Your task to perform on an android device: change notifications settings Image 0: 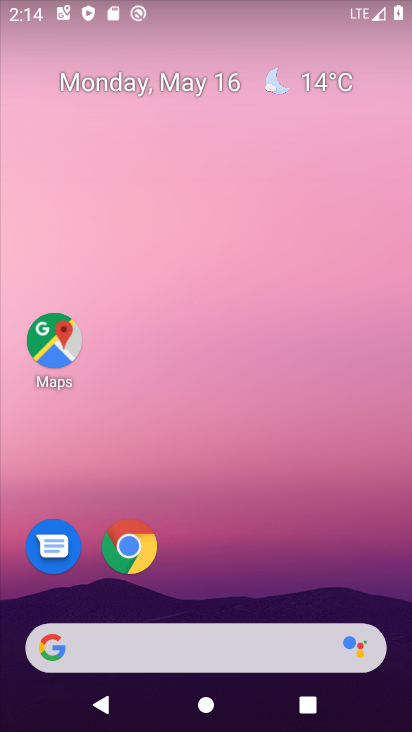
Step 0: drag from (276, 659) to (293, 253)
Your task to perform on an android device: change notifications settings Image 1: 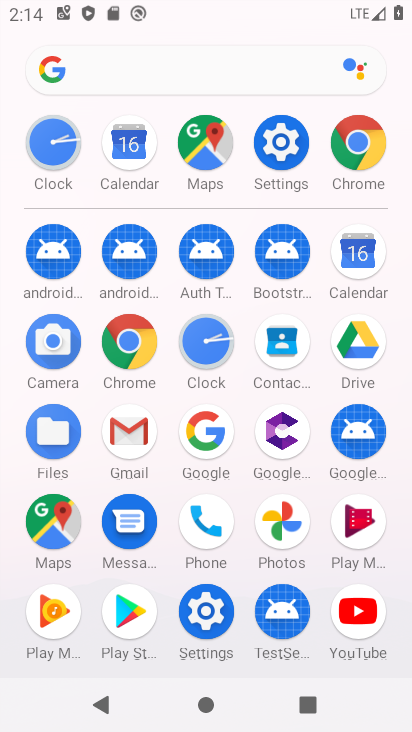
Step 1: click (197, 606)
Your task to perform on an android device: change notifications settings Image 2: 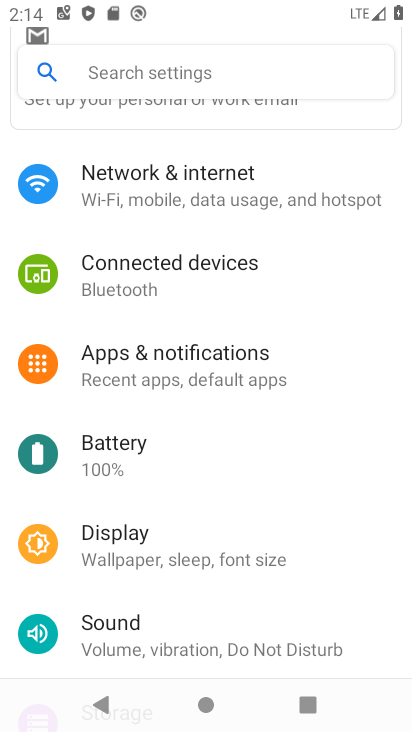
Step 2: click (137, 74)
Your task to perform on an android device: change notifications settings Image 3: 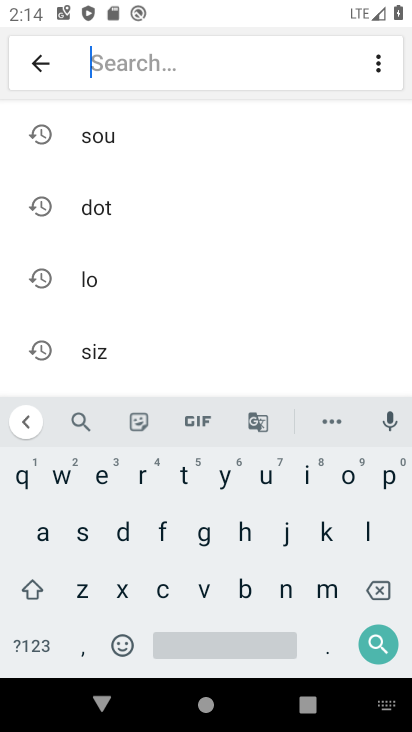
Step 3: click (287, 588)
Your task to perform on an android device: change notifications settings Image 4: 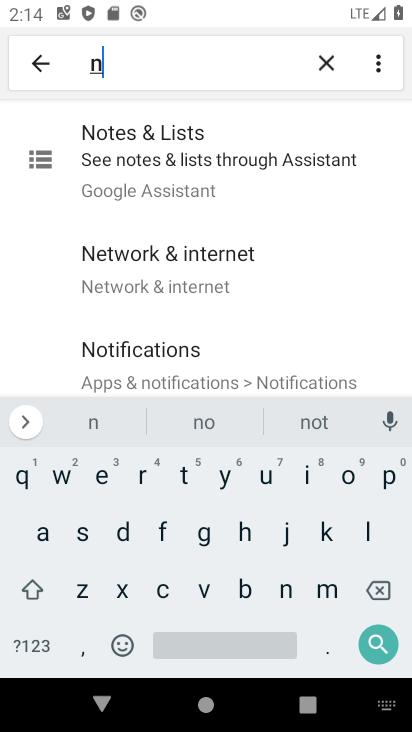
Step 4: click (343, 479)
Your task to perform on an android device: change notifications settings Image 5: 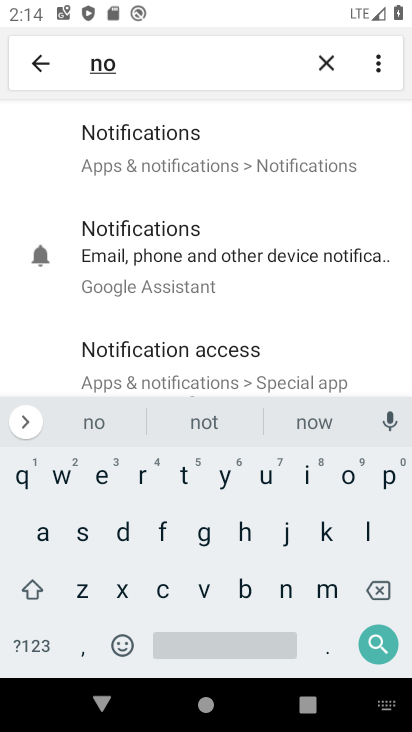
Step 5: click (181, 166)
Your task to perform on an android device: change notifications settings Image 6: 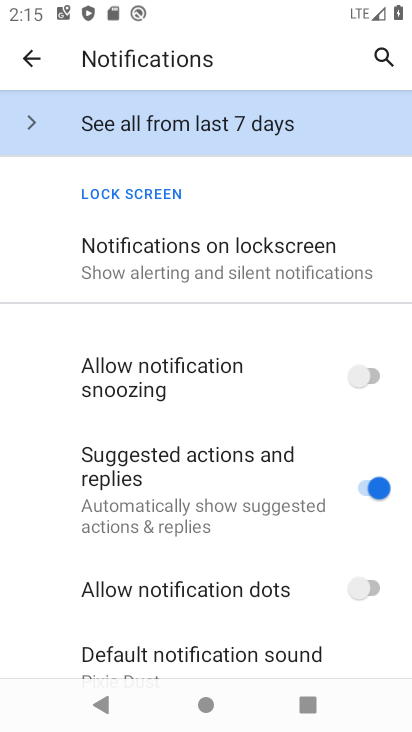
Step 6: click (137, 254)
Your task to perform on an android device: change notifications settings Image 7: 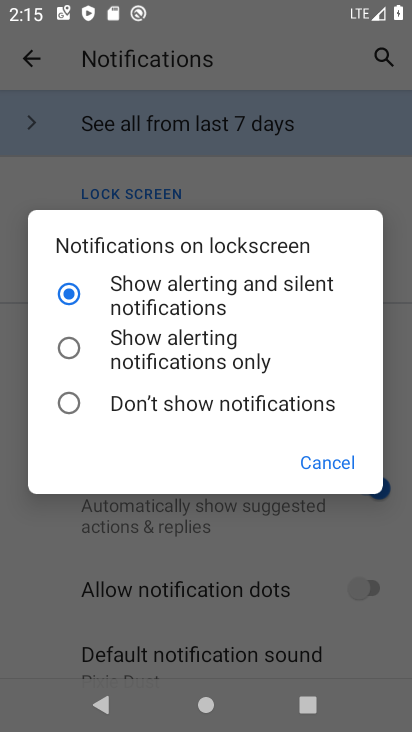
Step 7: task complete